Your task to perform on an android device: Open CNN.com Image 0: 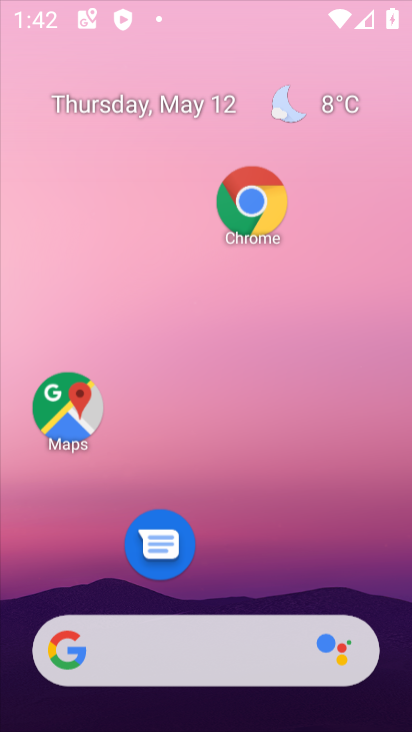
Step 0: click (239, 178)
Your task to perform on an android device: Open CNN.com Image 1: 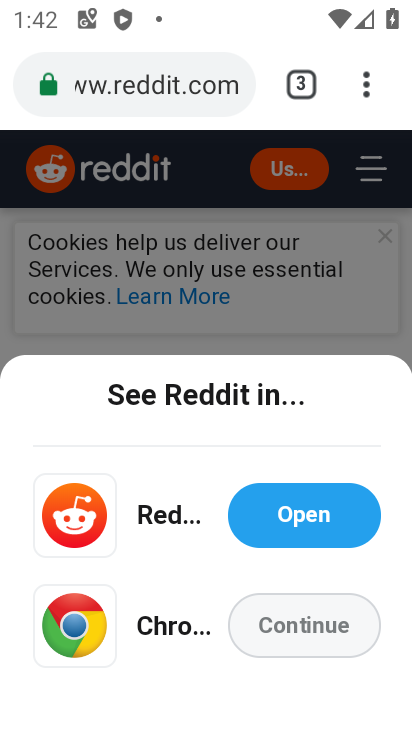
Step 1: press home button
Your task to perform on an android device: Open CNN.com Image 2: 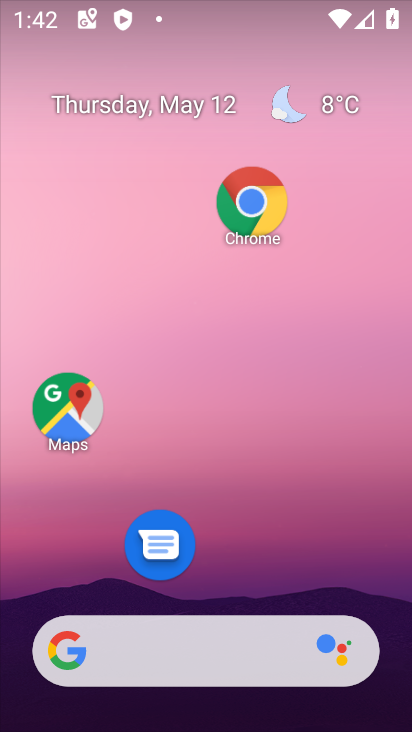
Step 2: drag from (207, 564) to (227, 120)
Your task to perform on an android device: Open CNN.com Image 3: 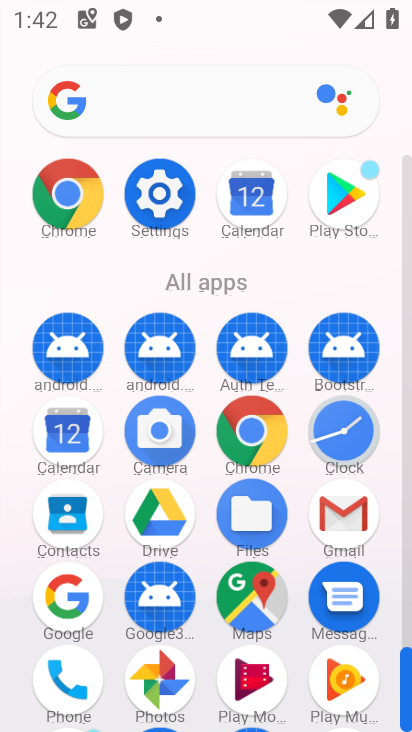
Step 3: click (196, 115)
Your task to perform on an android device: Open CNN.com Image 4: 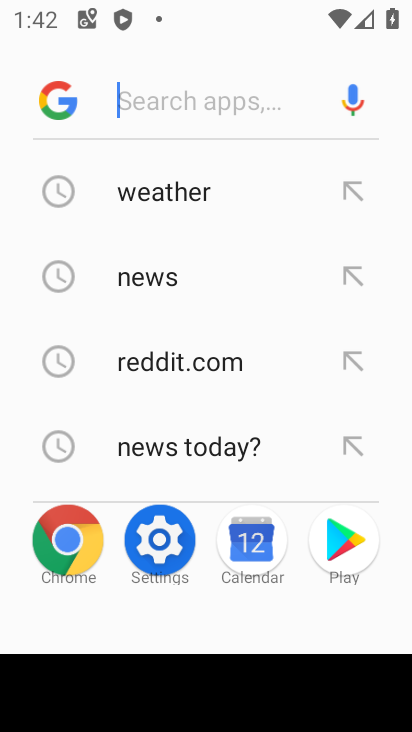
Step 4: type "cnn.com"
Your task to perform on an android device: Open CNN.com Image 5: 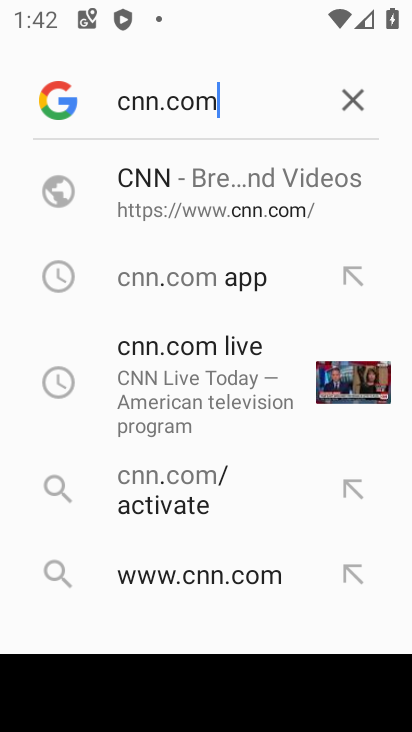
Step 5: click (151, 184)
Your task to perform on an android device: Open CNN.com Image 6: 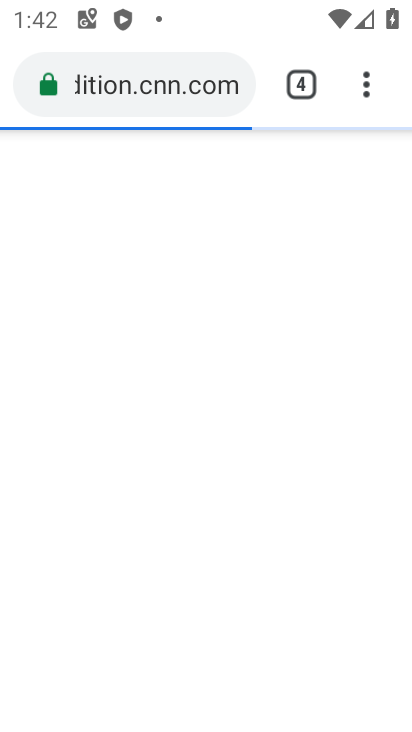
Step 6: task complete